Your task to perform on an android device: empty trash in the gmail app Image 0: 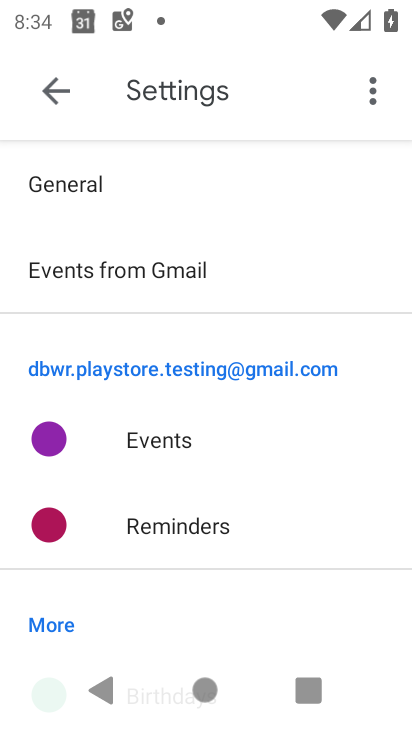
Step 0: press home button
Your task to perform on an android device: empty trash in the gmail app Image 1: 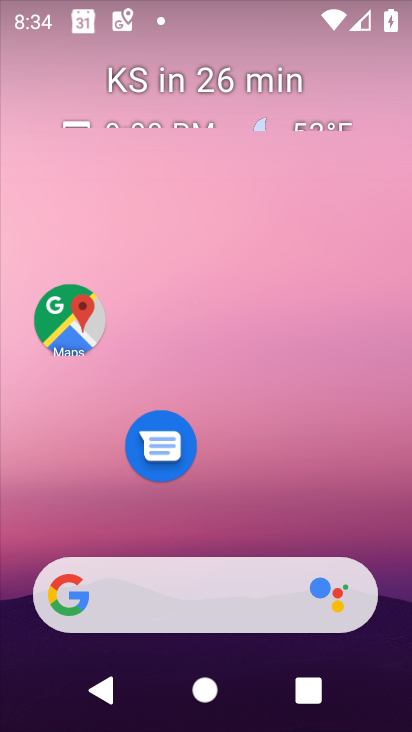
Step 1: drag from (162, 546) to (174, 6)
Your task to perform on an android device: empty trash in the gmail app Image 2: 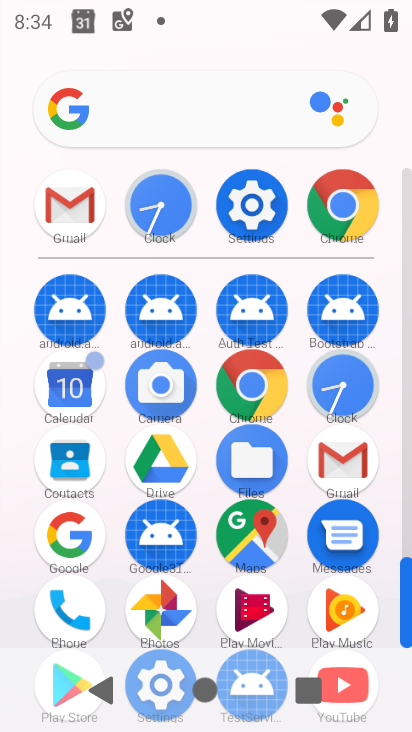
Step 2: click (147, 595)
Your task to perform on an android device: empty trash in the gmail app Image 3: 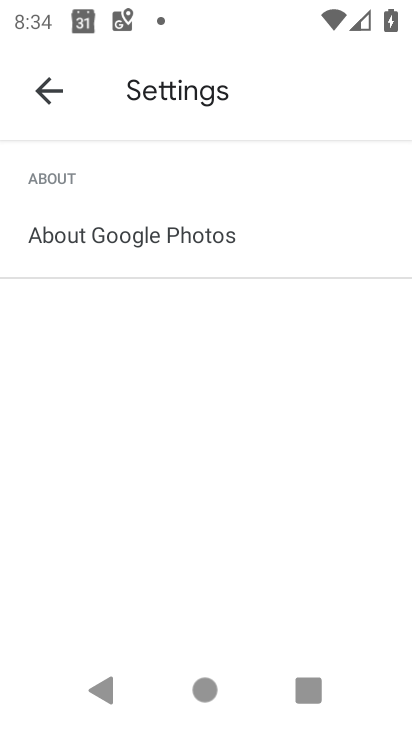
Step 3: click (52, 105)
Your task to perform on an android device: empty trash in the gmail app Image 4: 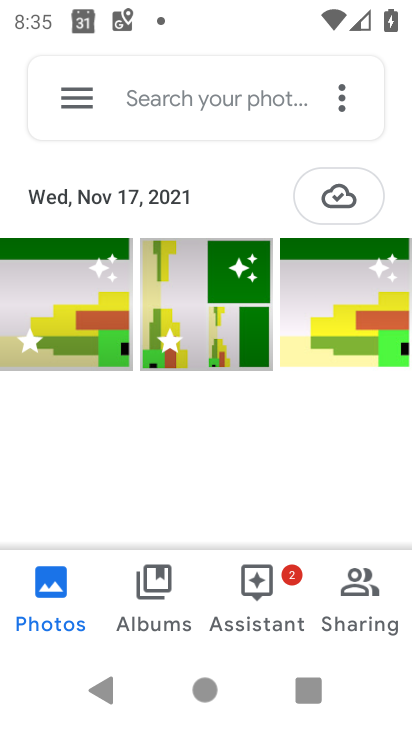
Step 4: click (74, 105)
Your task to perform on an android device: empty trash in the gmail app Image 5: 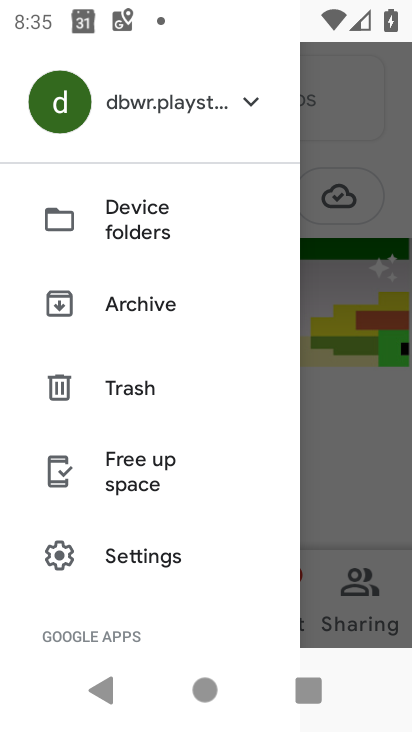
Step 5: click (120, 391)
Your task to perform on an android device: empty trash in the gmail app Image 6: 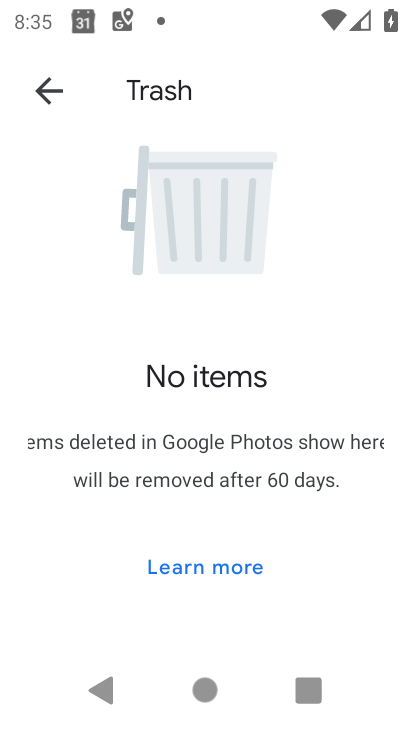
Step 6: task complete